Your task to perform on an android device: turn pop-ups off in chrome Image 0: 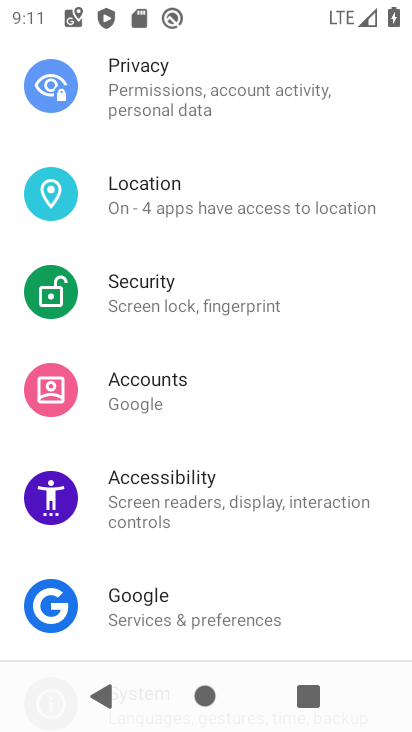
Step 0: press back button
Your task to perform on an android device: turn pop-ups off in chrome Image 1: 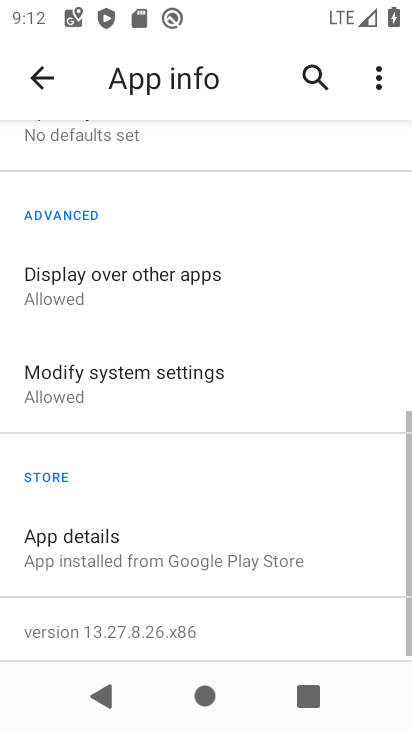
Step 1: press back button
Your task to perform on an android device: turn pop-ups off in chrome Image 2: 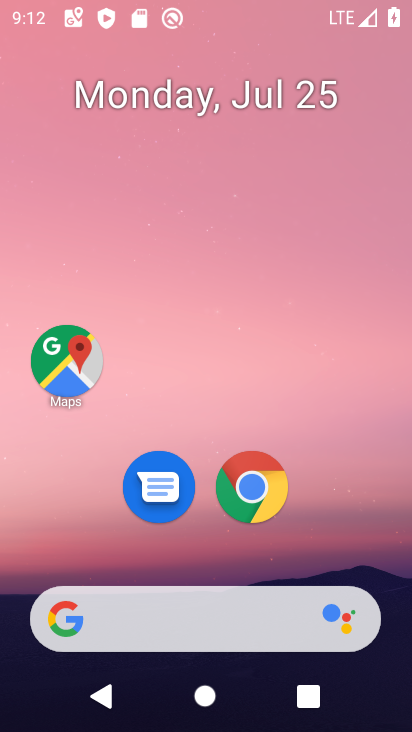
Step 2: press back button
Your task to perform on an android device: turn pop-ups off in chrome Image 3: 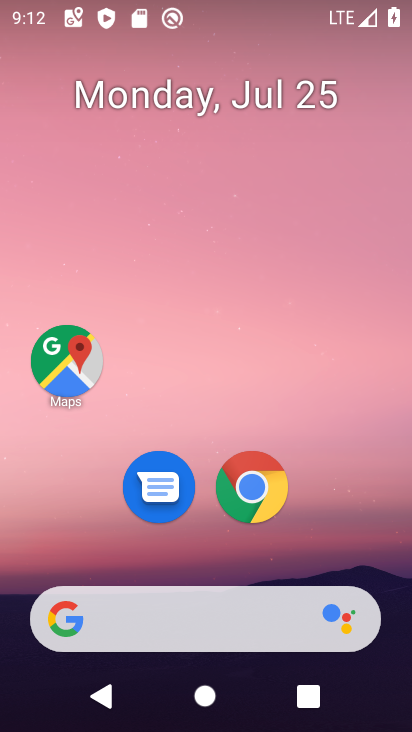
Step 3: click (263, 475)
Your task to perform on an android device: turn pop-ups off in chrome Image 4: 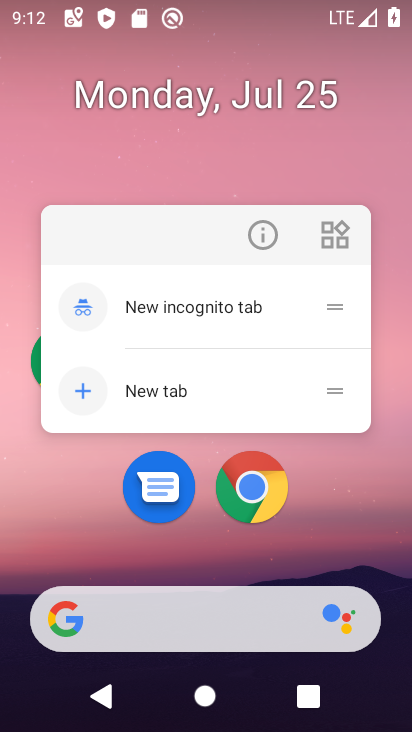
Step 4: click (249, 483)
Your task to perform on an android device: turn pop-ups off in chrome Image 5: 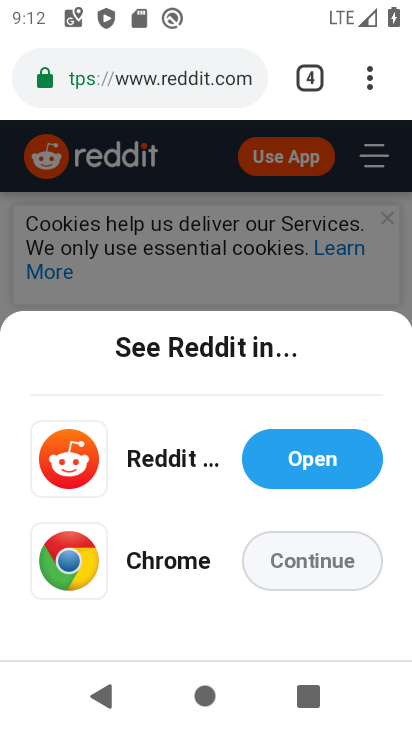
Step 5: drag from (377, 67) to (162, 543)
Your task to perform on an android device: turn pop-ups off in chrome Image 6: 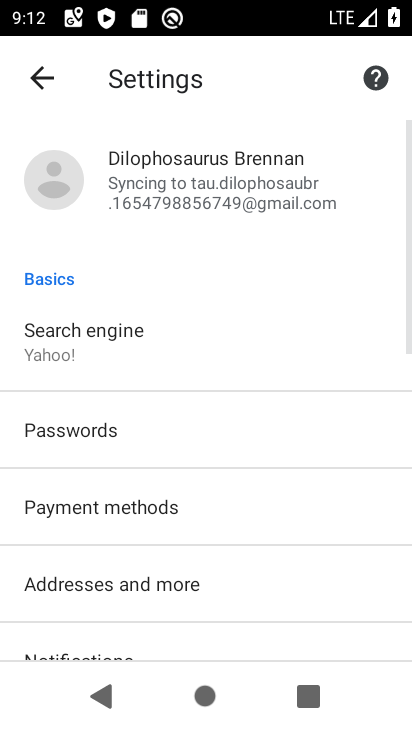
Step 6: drag from (165, 556) to (281, 65)
Your task to perform on an android device: turn pop-ups off in chrome Image 7: 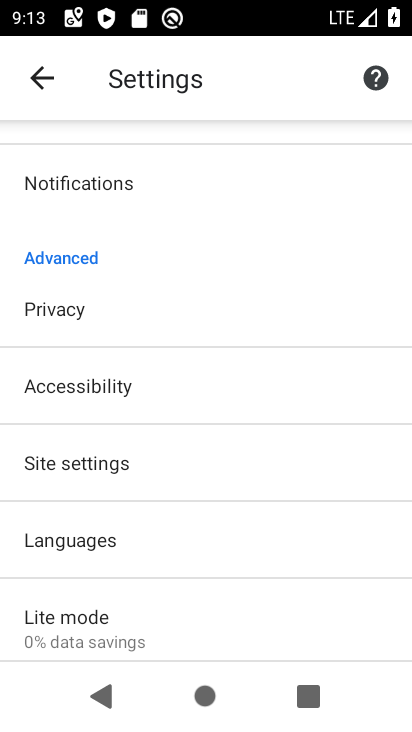
Step 7: click (101, 449)
Your task to perform on an android device: turn pop-ups off in chrome Image 8: 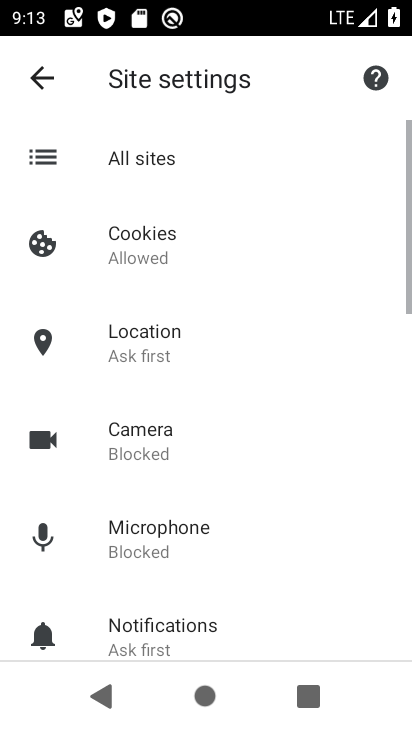
Step 8: drag from (127, 584) to (280, 124)
Your task to perform on an android device: turn pop-ups off in chrome Image 9: 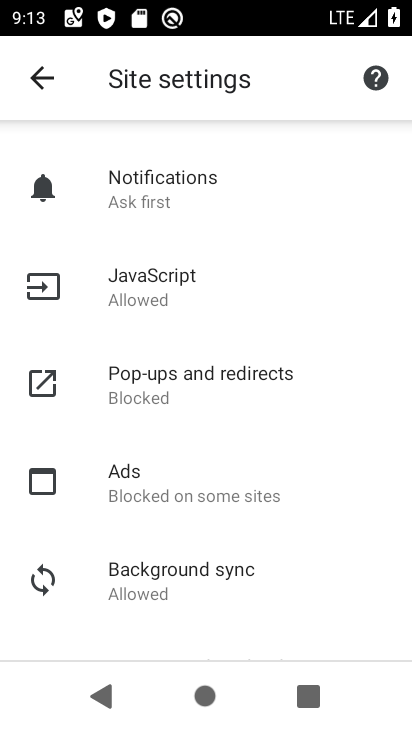
Step 9: click (162, 386)
Your task to perform on an android device: turn pop-ups off in chrome Image 10: 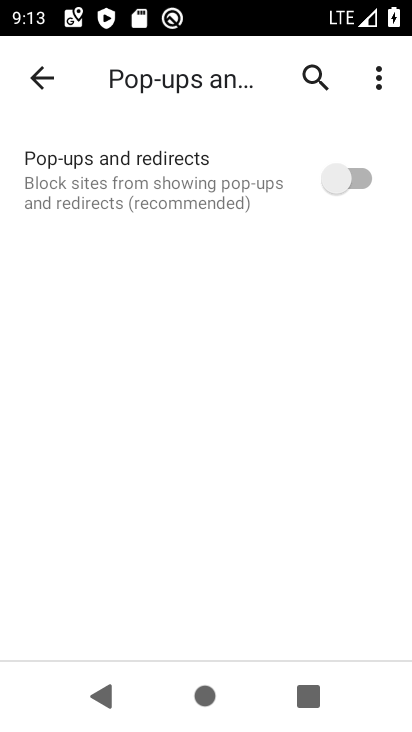
Step 10: task complete